Your task to perform on an android device: Go to location settings Image 0: 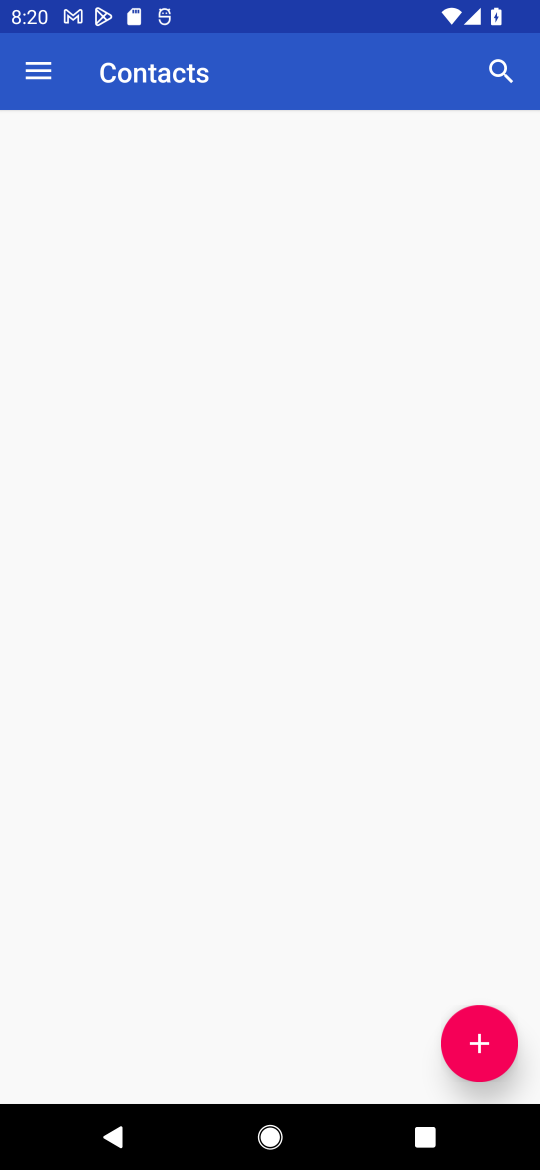
Step 0: press home button
Your task to perform on an android device: Go to location settings Image 1: 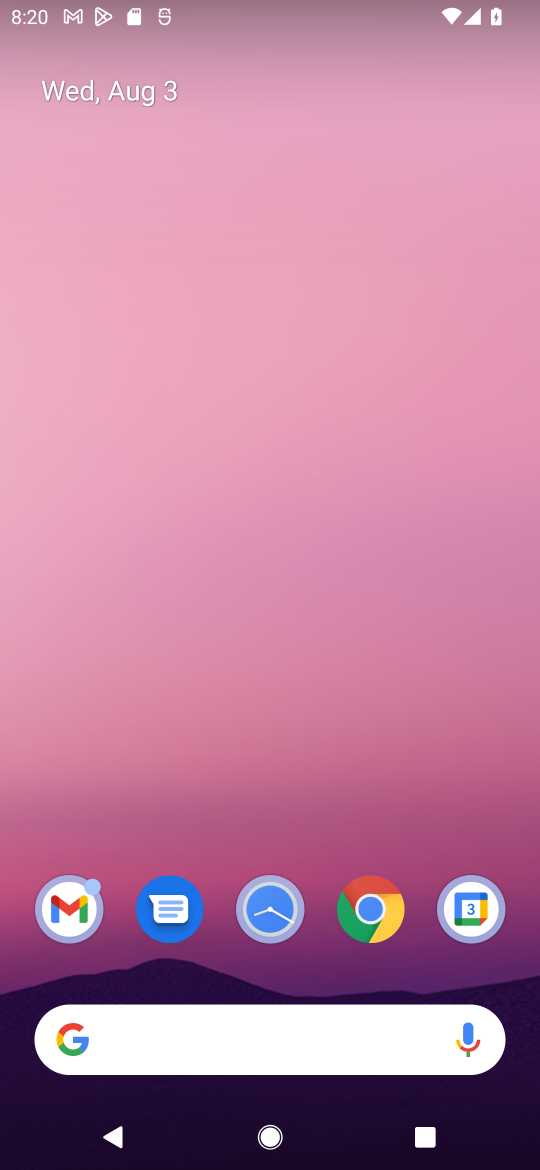
Step 1: drag from (435, 800) to (426, 164)
Your task to perform on an android device: Go to location settings Image 2: 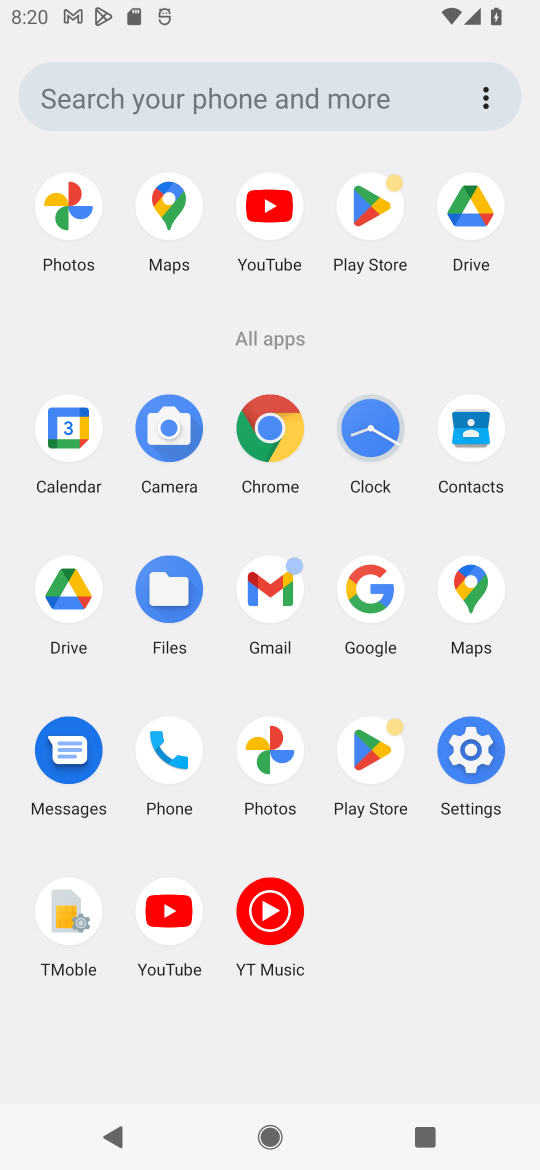
Step 2: click (474, 759)
Your task to perform on an android device: Go to location settings Image 3: 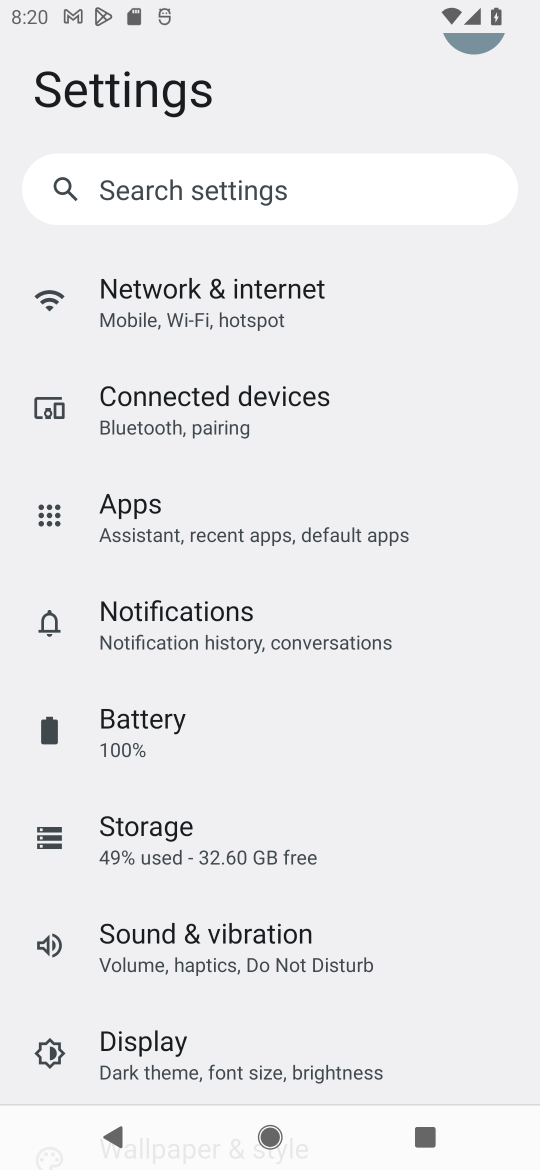
Step 3: drag from (407, 774) to (439, 637)
Your task to perform on an android device: Go to location settings Image 4: 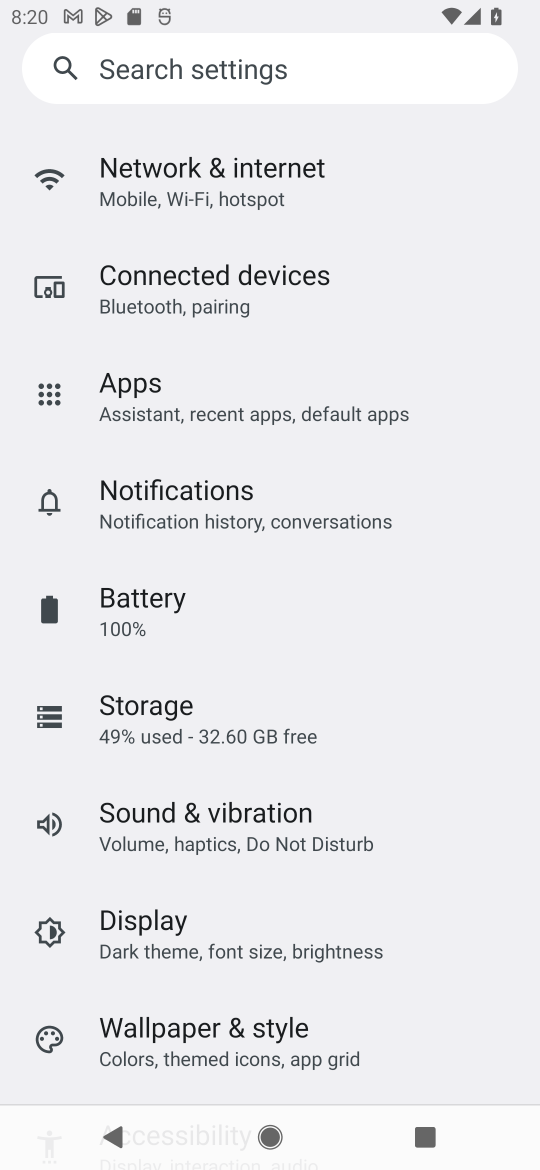
Step 4: drag from (458, 876) to (459, 699)
Your task to perform on an android device: Go to location settings Image 5: 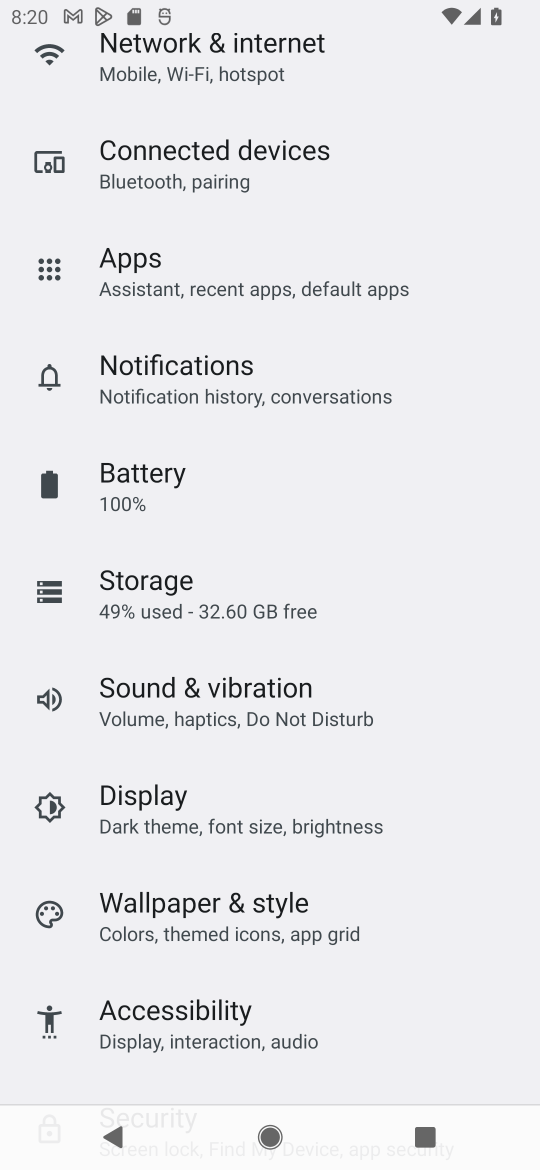
Step 5: drag from (442, 921) to (442, 679)
Your task to perform on an android device: Go to location settings Image 6: 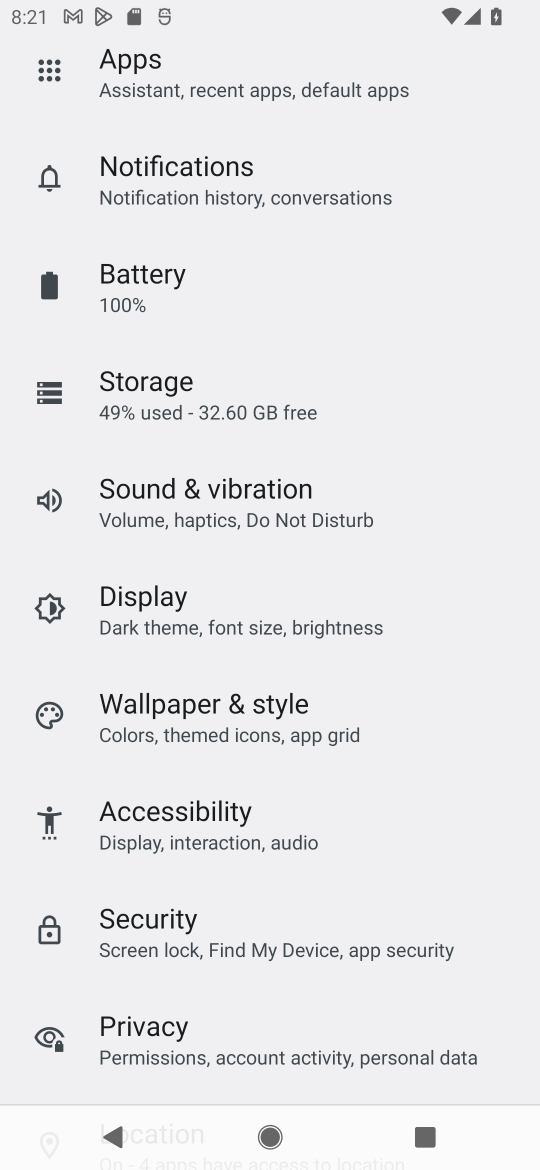
Step 6: drag from (442, 841) to (447, 685)
Your task to perform on an android device: Go to location settings Image 7: 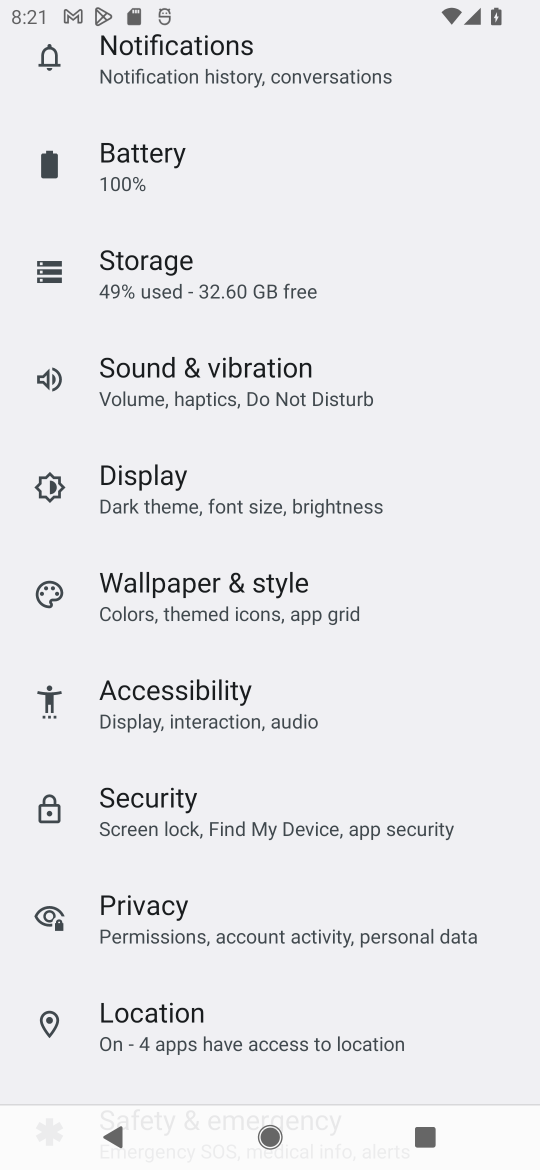
Step 7: drag from (480, 860) to (461, 606)
Your task to perform on an android device: Go to location settings Image 8: 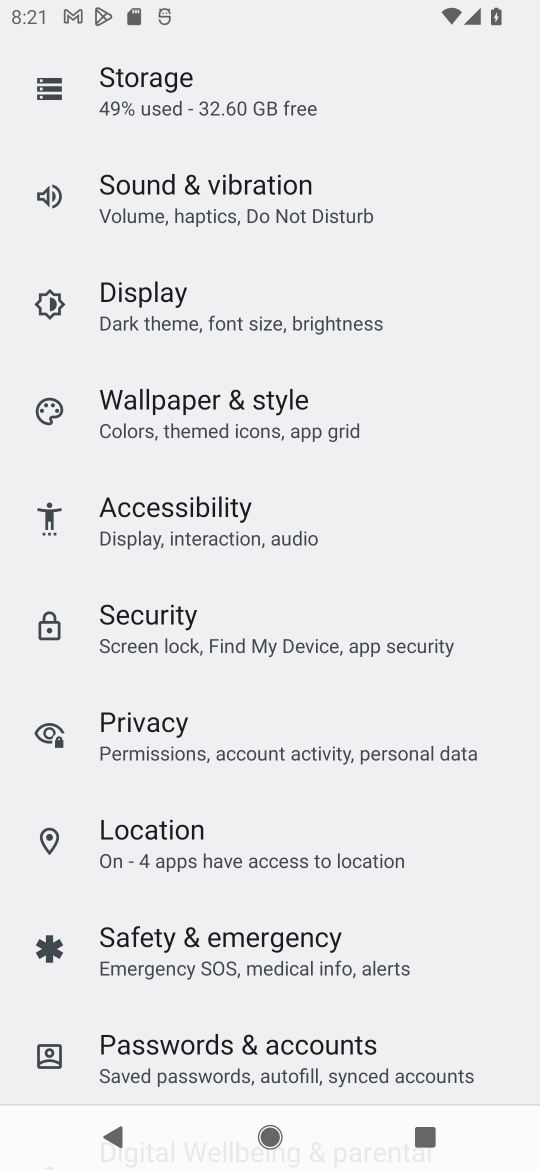
Step 8: drag from (471, 907) to (461, 696)
Your task to perform on an android device: Go to location settings Image 9: 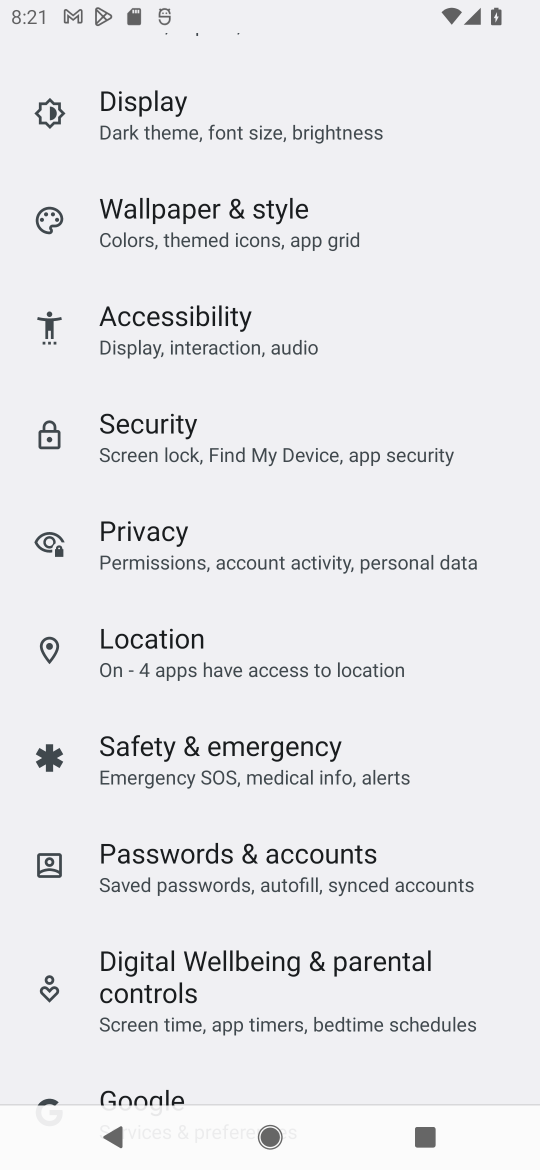
Step 9: drag from (473, 946) to (462, 732)
Your task to perform on an android device: Go to location settings Image 10: 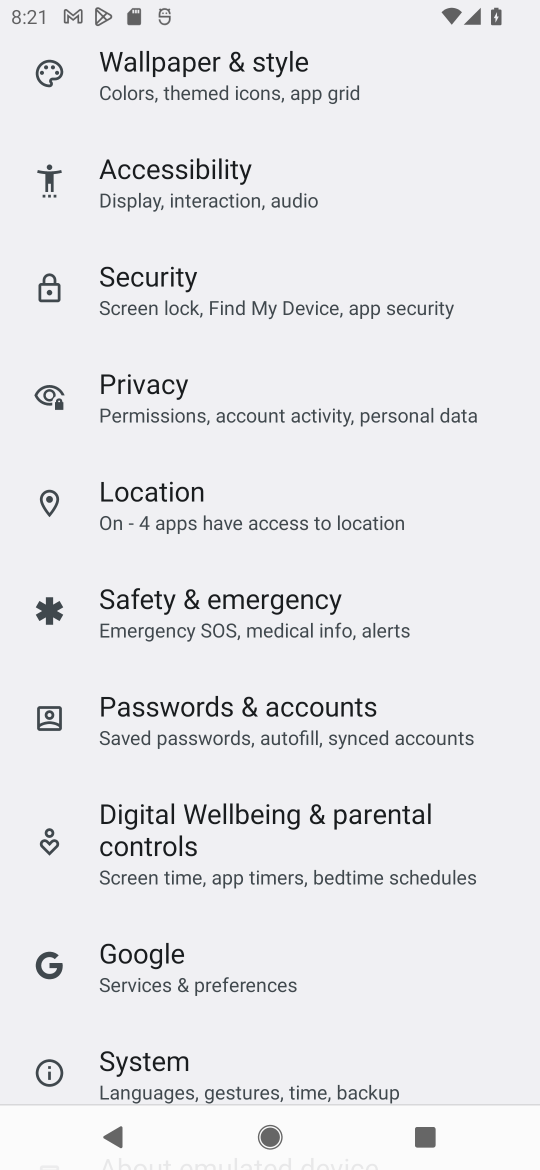
Step 10: drag from (460, 566) to (480, 783)
Your task to perform on an android device: Go to location settings Image 11: 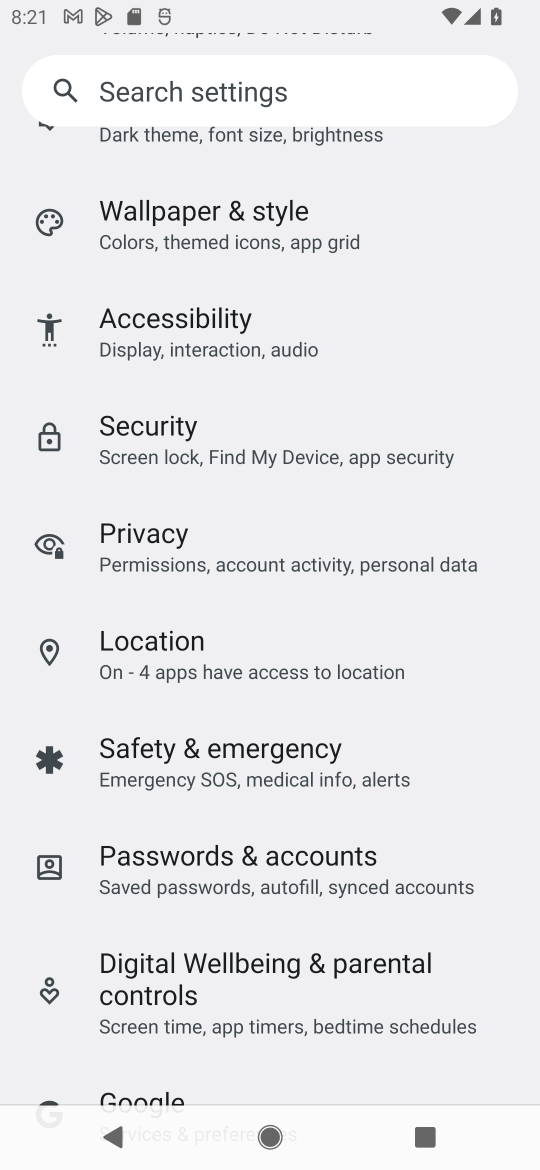
Step 11: drag from (480, 603) to (480, 775)
Your task to perform on an android device: Go to location settings Image 12: 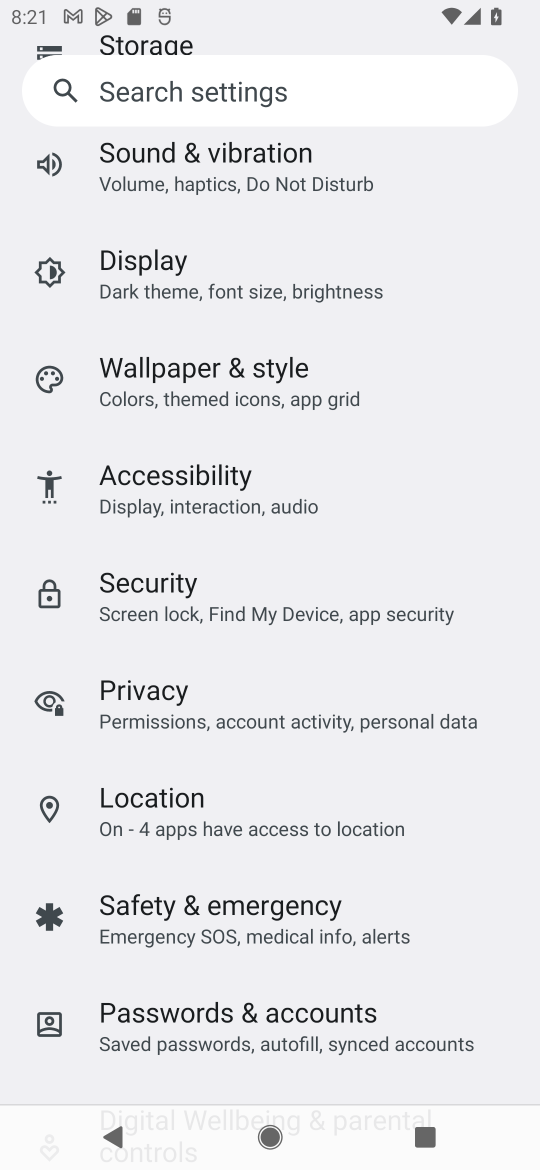
Step 12: click (378, 793)
Your task to perform on an android device: Go to location settings Image 13: 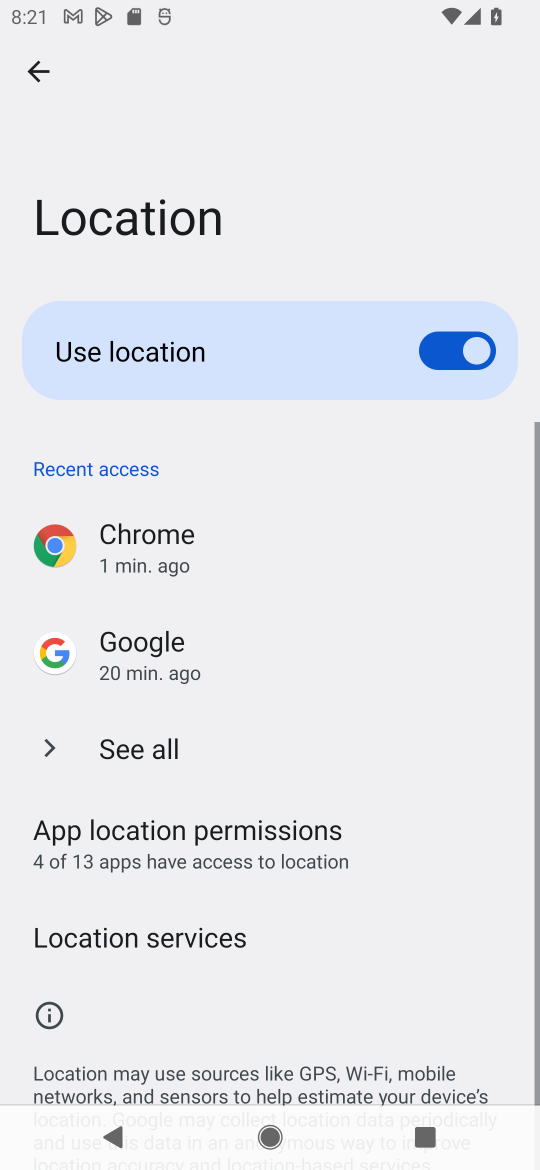
Step 13: task complete